Your task to perform on an android device: turn off wifi Image 0: 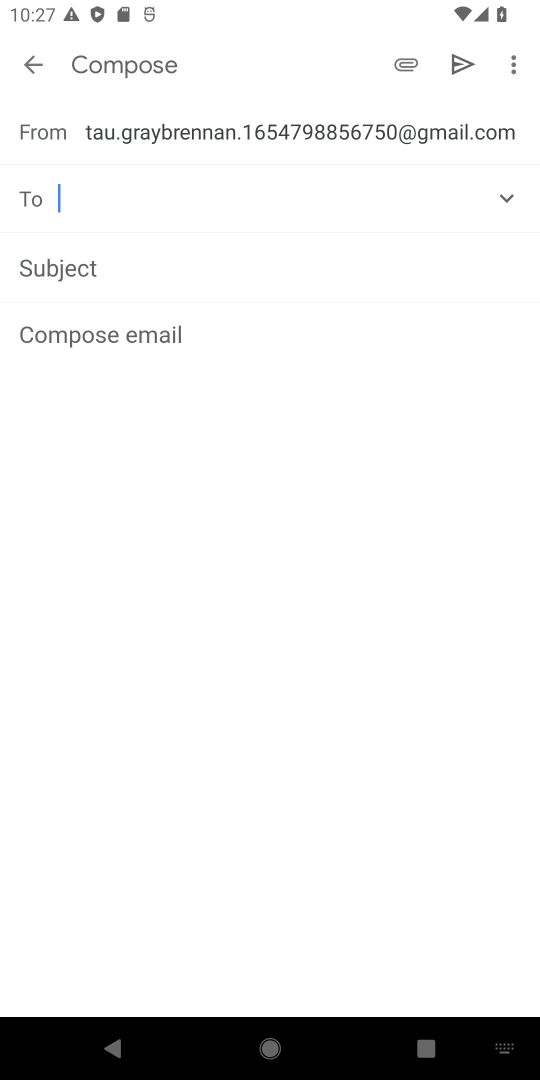
Step 0: press home button
Your task to perform on an android device: turn off wifi Image 1: 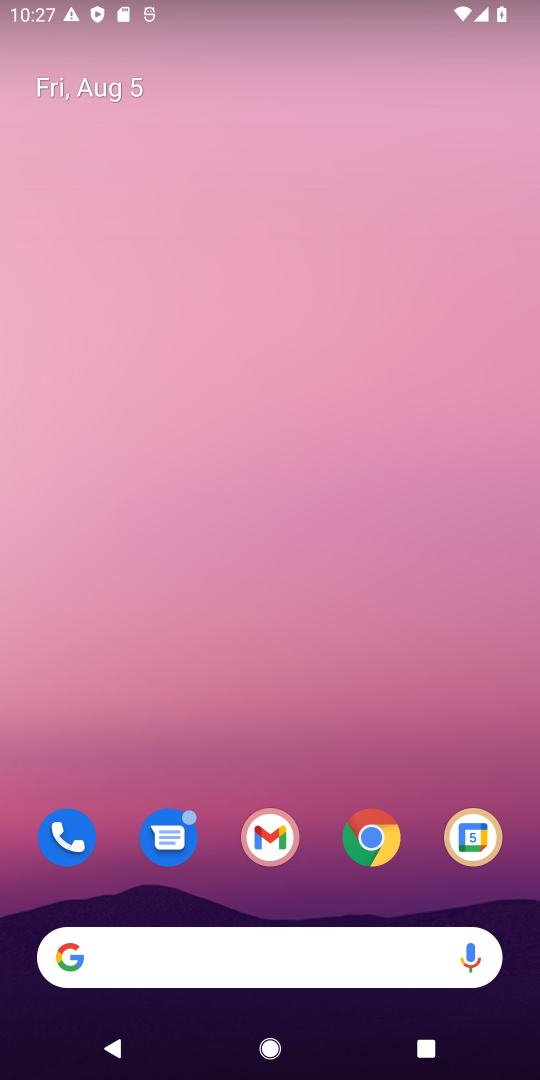
Step 1: drag from (303, 739) to (387, 0)
Your task to perform on an android device: turn off wifi Image 2: 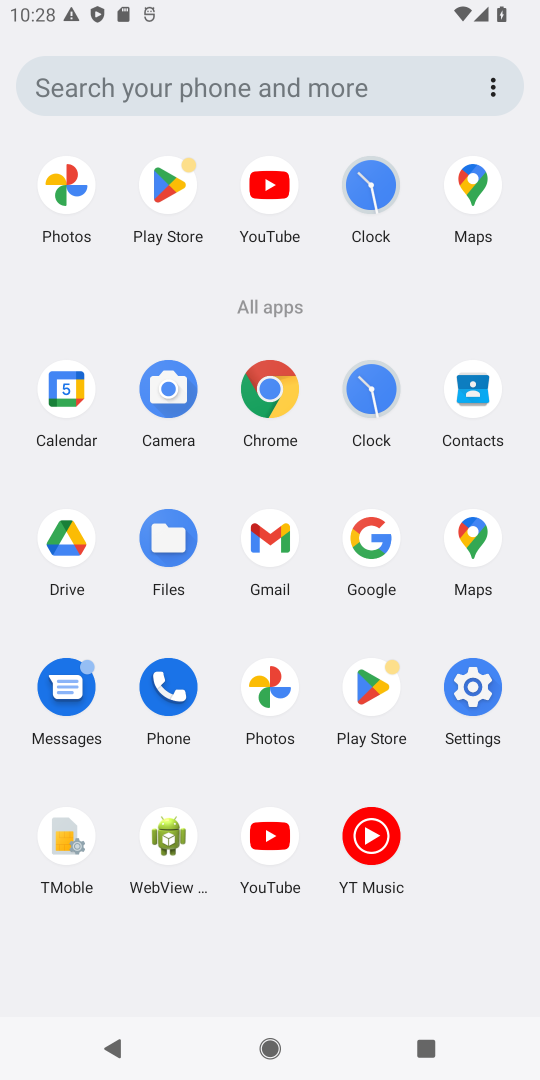
Step 2: click (485, 686)
Your task to perform on an android device: turn off wifi Image 3: 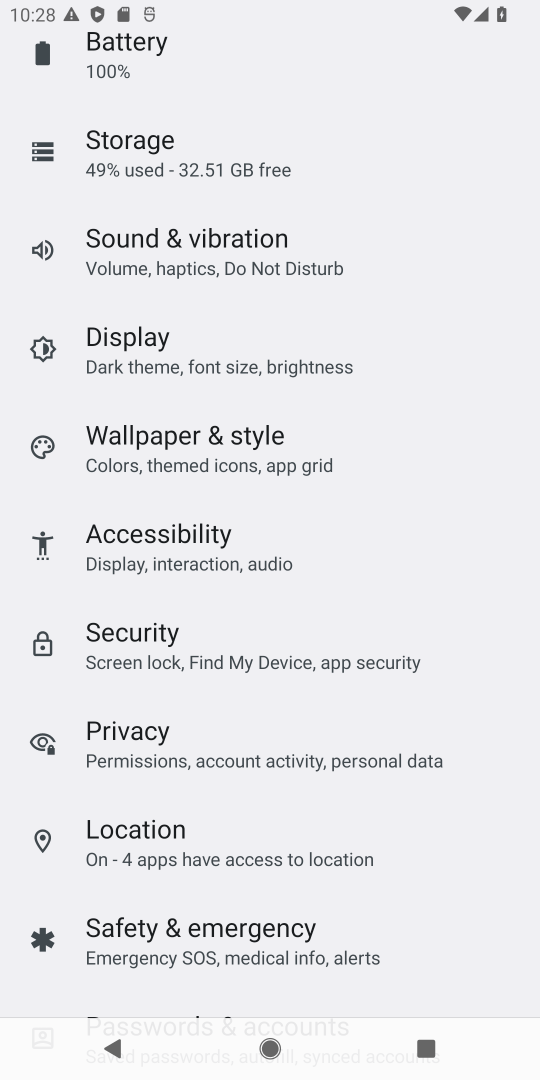
Step 3: drag from (330, 237) to (330, 881)
Your task to perform on an android device: turn off wifi Image 4: 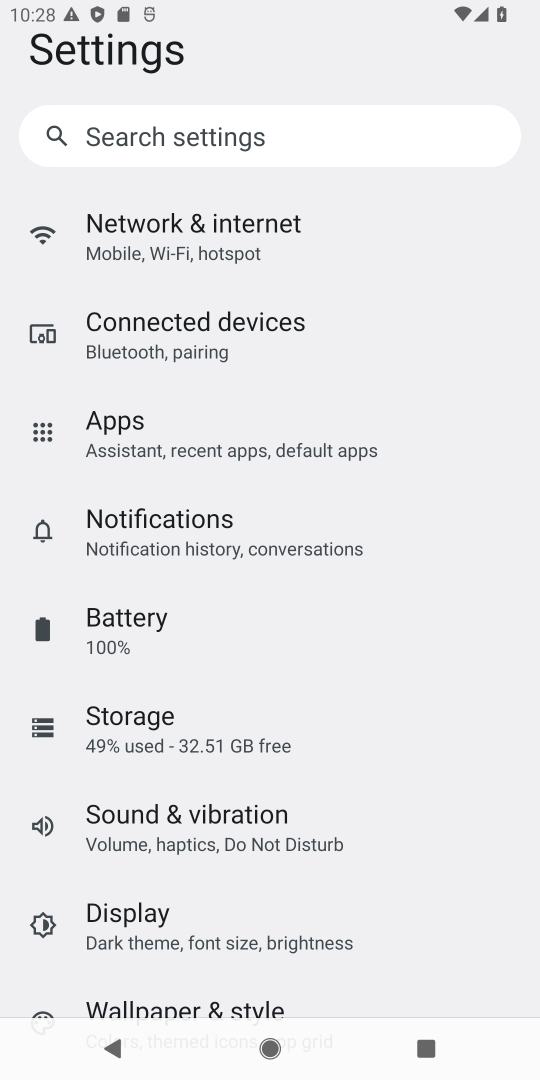
Step 4: click (249, 239)
Your task to perform on an android device: turn off wifi Image 5: 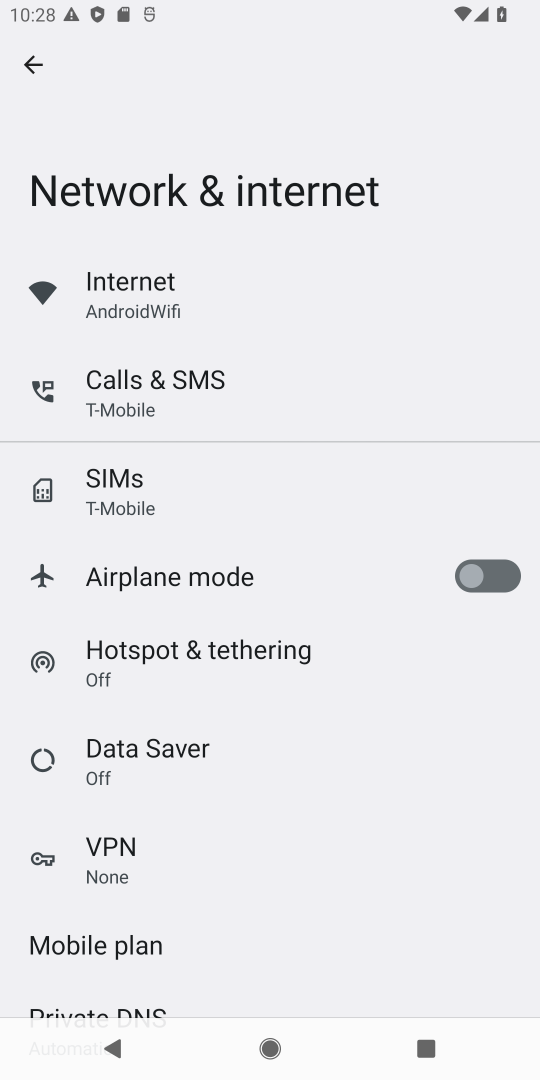
Step 5: click (202, 292)
Your task to perform on an android device: turn off wifi Image 6: 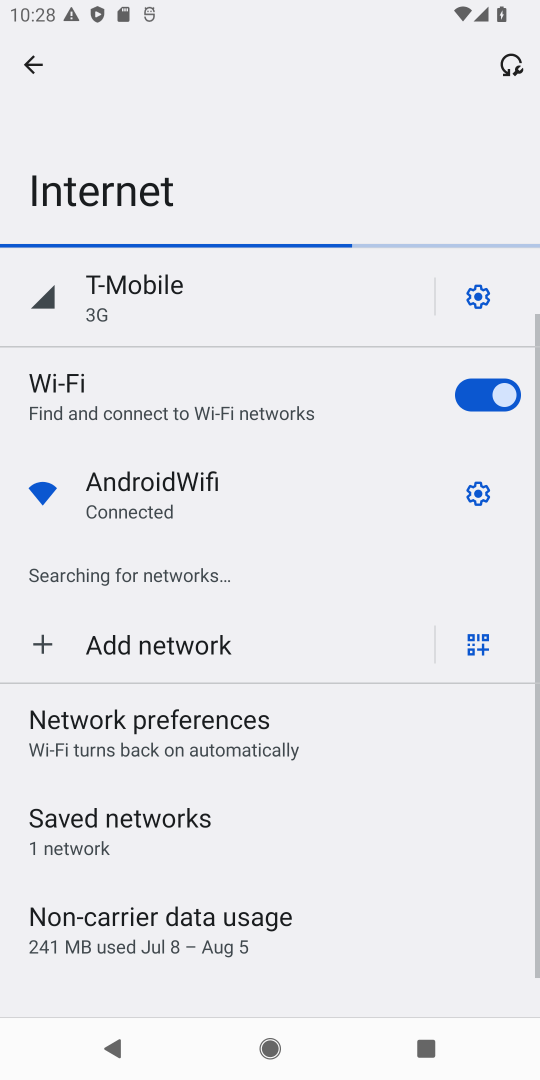
Step 6: click (484, 386)
Your task to perform on an android device: turn off wifi Image 7: 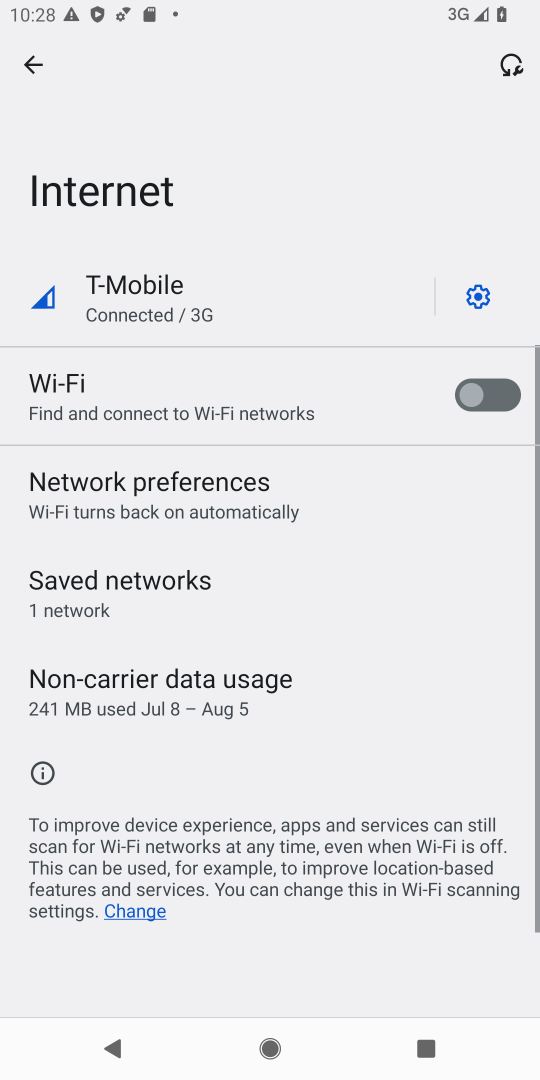
Step 7: task complete